Your task to perform on an android device: toggle sleep mode Image 0: 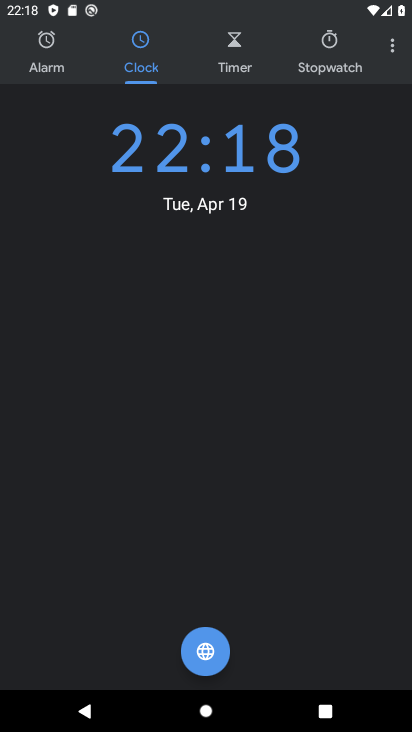
Step 0: press home button
Your task to perform on an android device: toggle sleep mode Image 1: 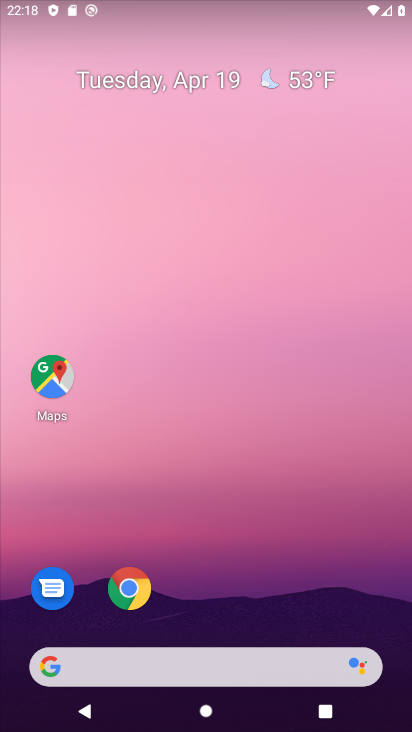
Step 1: drag from (146, 659) to (76, 129)
Your task to perform on an android device: toggle sleep mode Image 2: 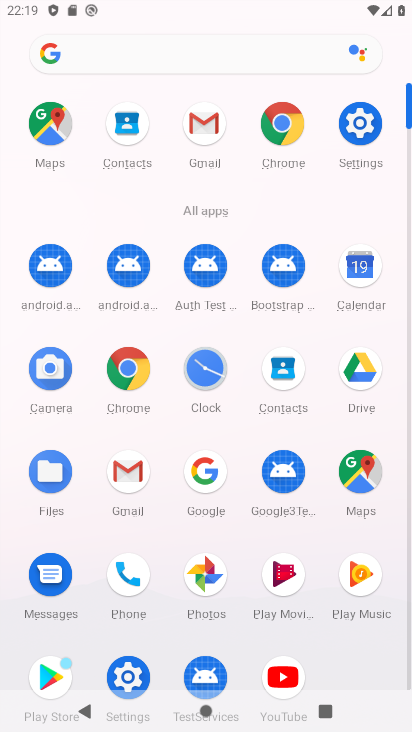
Step 2: click (132, 668)
Your task to perform on an android device: toggle sleep mode Image 3: 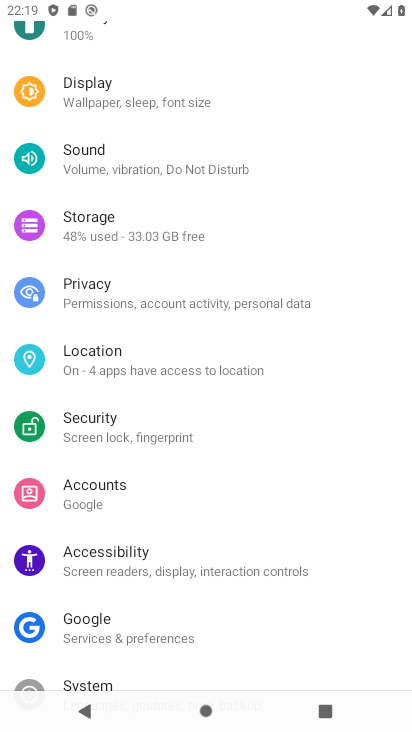
Step 3: click (108, 105)
Your task to perform on an android device: toggle sleep mode Image 4: 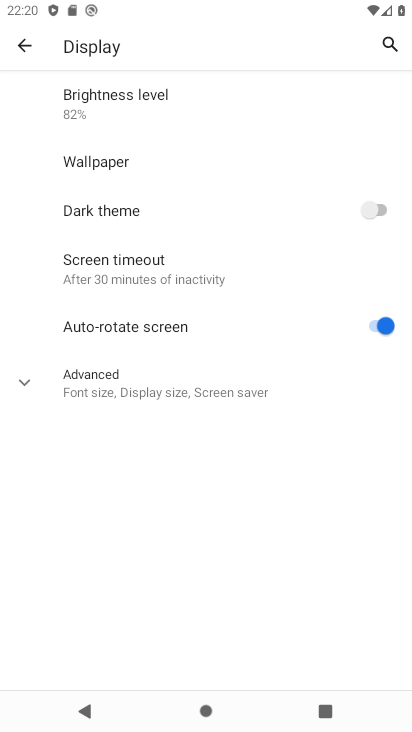
Step 4: click (155, 391)
Your task to perform on an android device: toggle sleep mode Image 5: 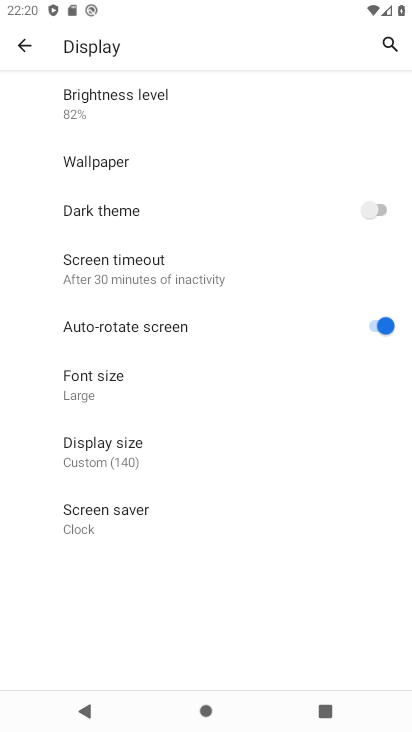
Step 5: task complete